Your task to perform on an android device: What's the weather going to be tomorrow? Image 0: 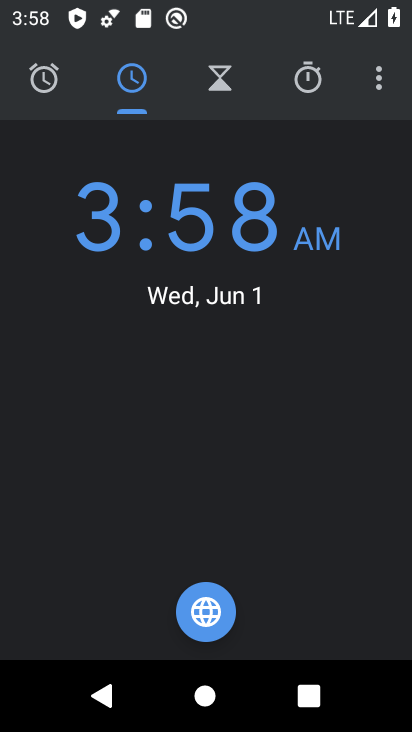
Step 0: press home button
Your task to perform on an android device: What's the weather going to be tomorrow? Image 1: 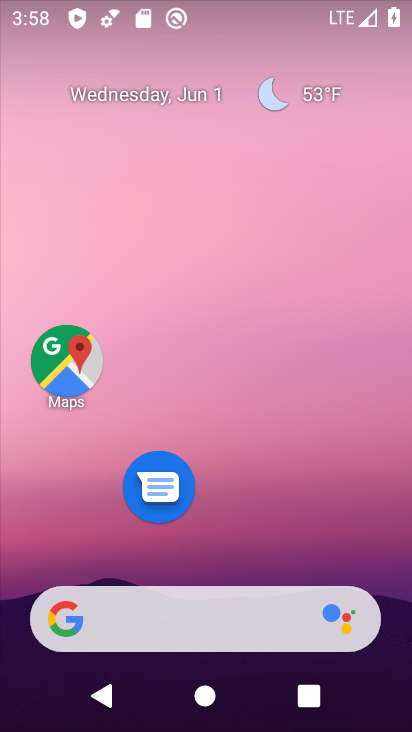
Step 1: click (289, 103)
Your task to perform on an android device: What's the weather going to be tomorrow? Image 2: 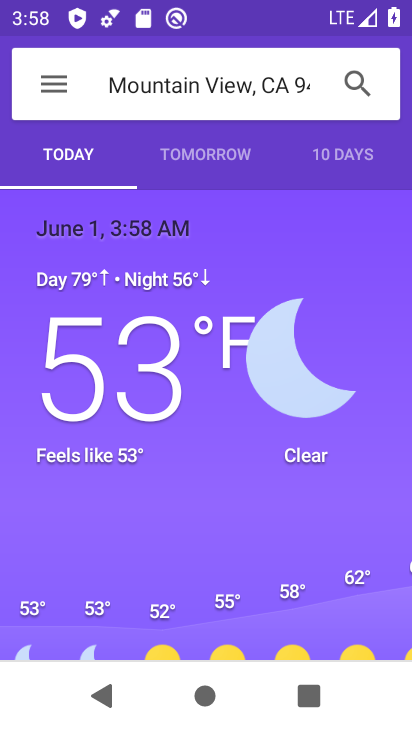
Step 2: click (179, 168)
Your task to perform on an android device: What's the weather going to be tomorrow? Image 3: 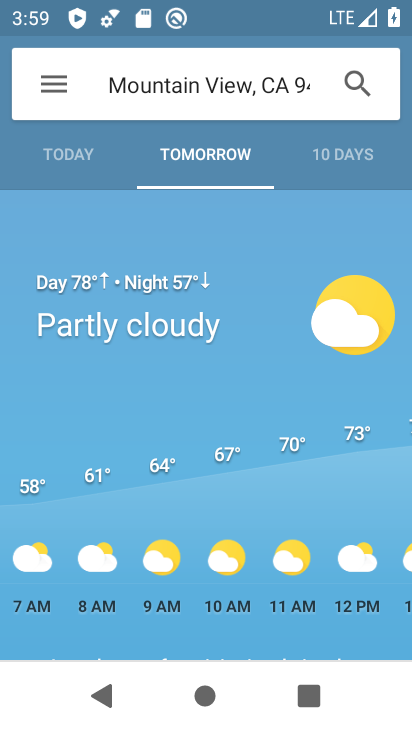
Step 3: task complete